Your task to perform on an android device: change the clock display to digital Image 0: 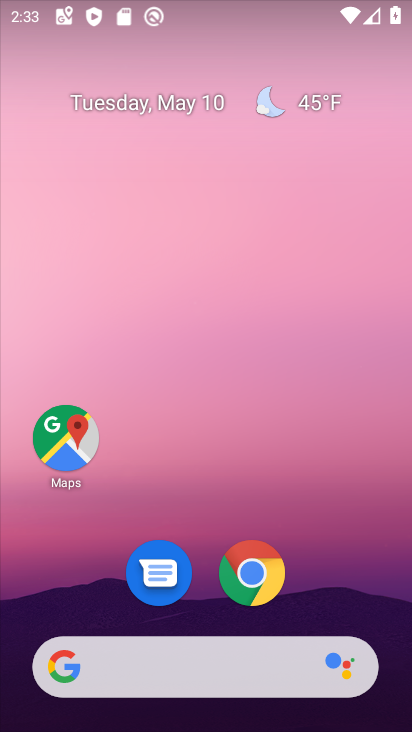
Step 0: drag from (202, 606) to (204, 135)
Your task to perform on an android device: change the clock display to digital Image 1: 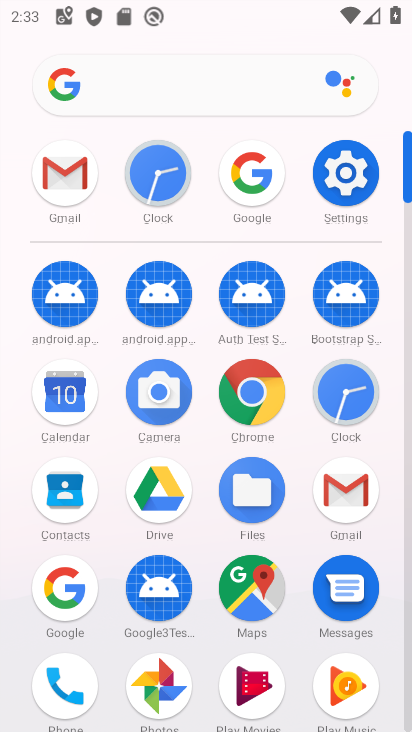
Step 1: click (174, 176)
Your task to perform on an android device: change the clock display to digital Image 2: 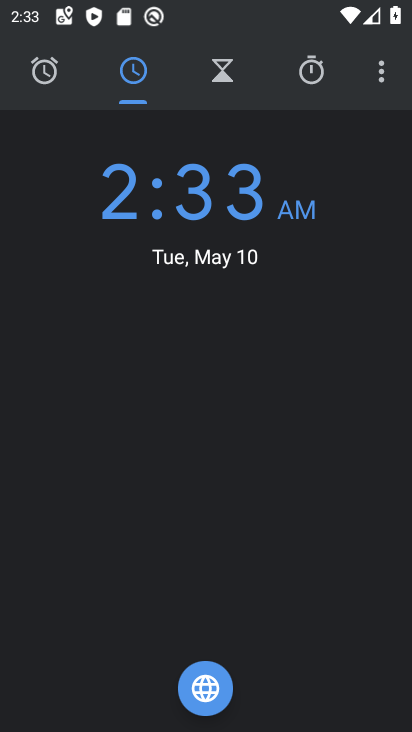
Step 2: click (378, 87)
Your task to perform on an android device: change the clock display to digital Image 3: 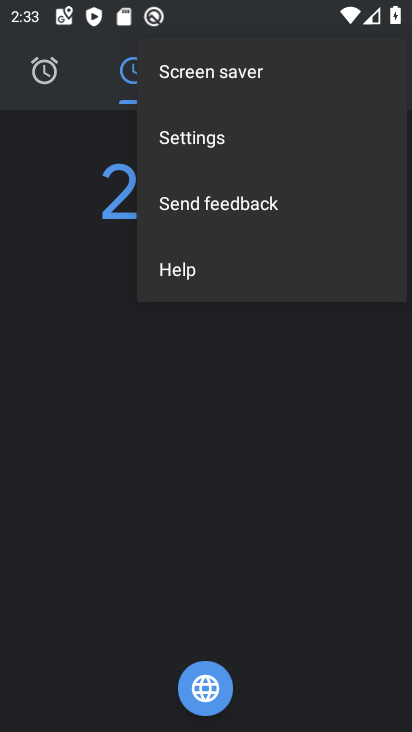
Step 3: click (258, 138)
Your task to perform on an android device: change the clock display to digital Image 4: 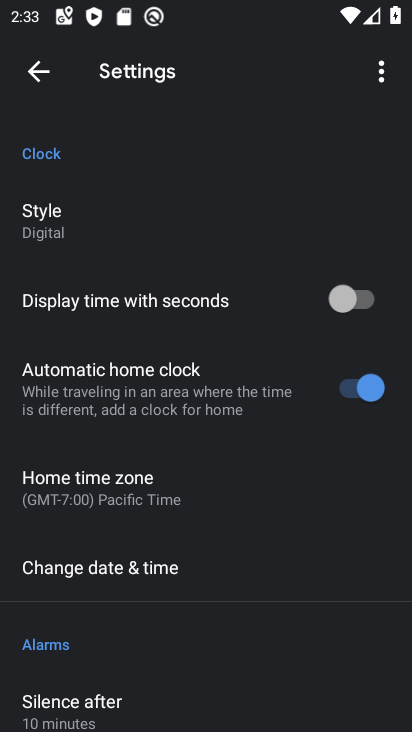
Step 4: task complete